Your task to perform on an android device: Open Google Chrome and open the bookmarks view Image 0: 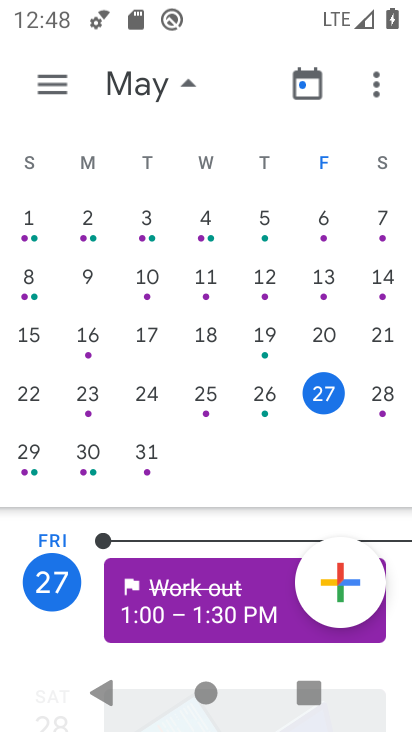
Step 0: press home button
Your task to perform on an android device: Open Google Chrome and open the bookmarks view Image 1: 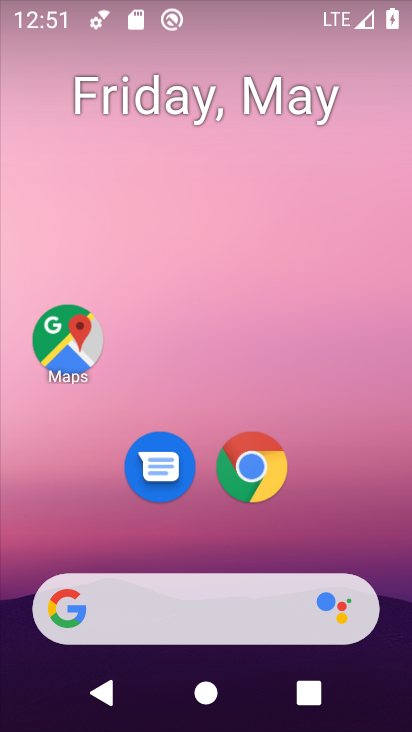
Step 1: drag from (328, 494) to (262, 8)
Your task to perform on an android device: Open Google Chrome and open the bookmarks view Image 2: 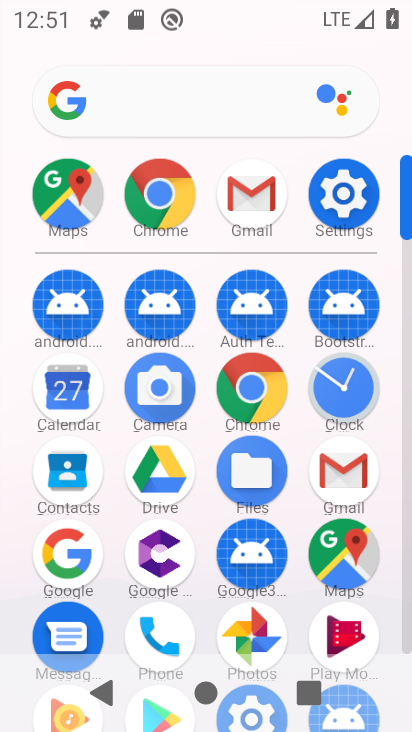
Step 2: click (147, 212)
Your task to perform on an android device: Open Google Chrome and open the bookmarks view Image 3: 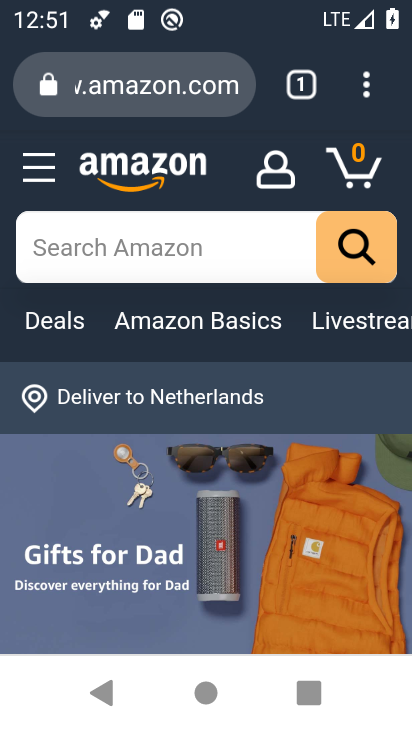
Step 3: task complete